Your task to perform on an android device: View the shopping cart on costco. Search for dell xps on costco, select the first entry, and add it to the cart. Image 0: 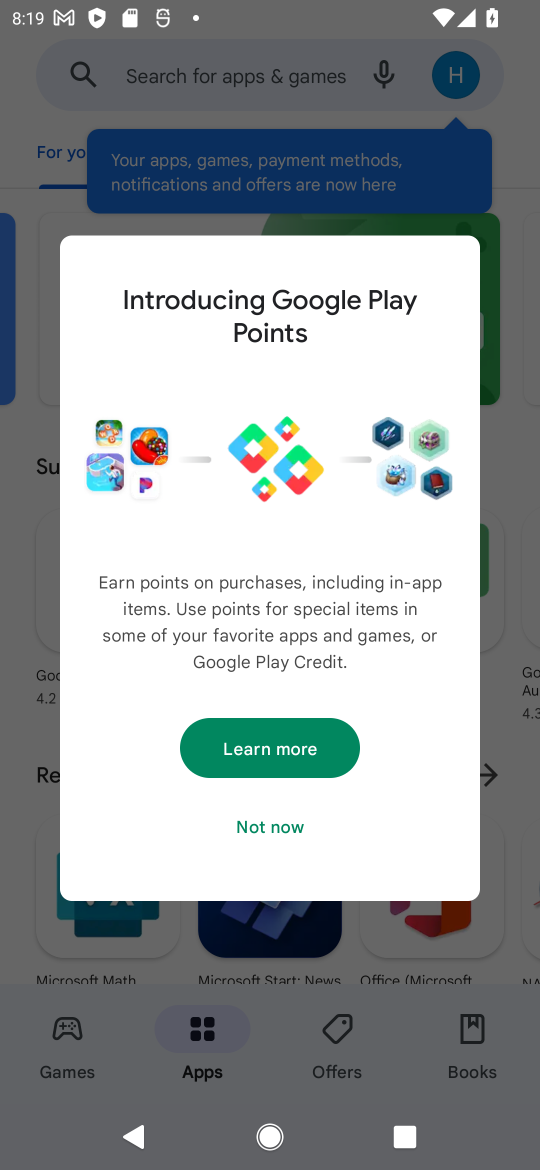
Step 0: press home button
Your task to perform on an android device: View the shopping cart on costco. Search for dell xps on costco, select the first entry, and add it to the cart. Image 1: 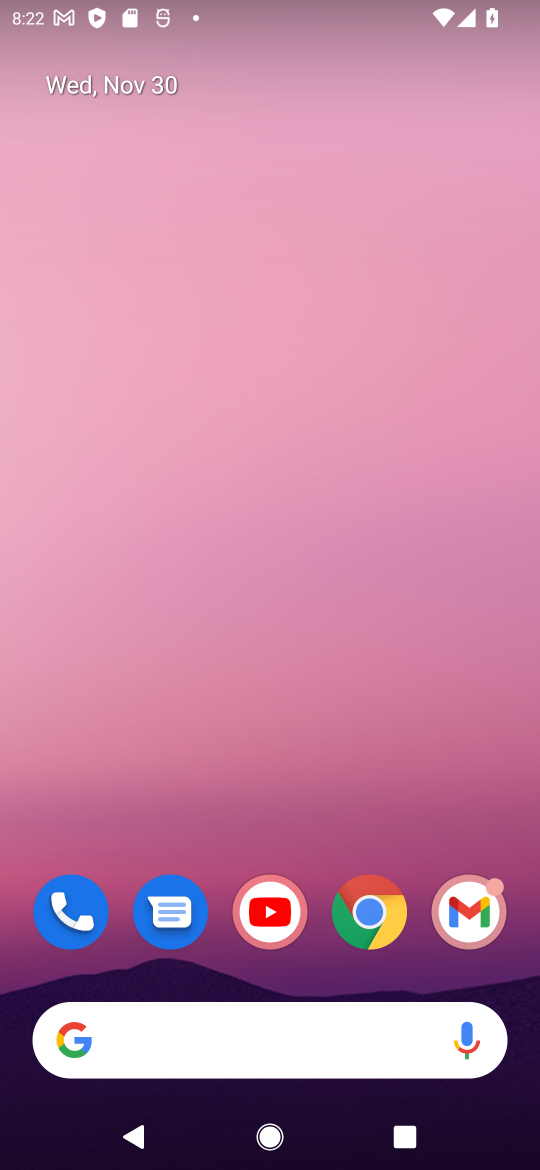
Step 1: click (387, 1032)
Your task to perform on an android device: View the shopping cart on costco. Search for dell xps on costco, select the first entry, and add it to the cart. Image 2: 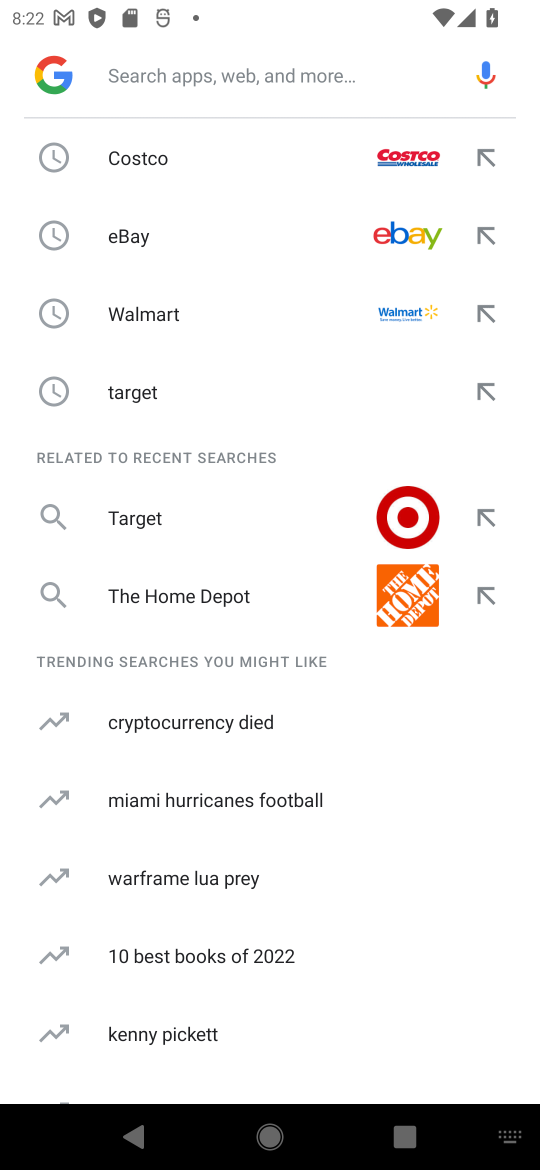
Step 2: click (230, 170)
Your task to perform on an android device: View the shopping cart on costco. Search for dell xps on costco, select the first entry, and add it to the cart. Image 3: 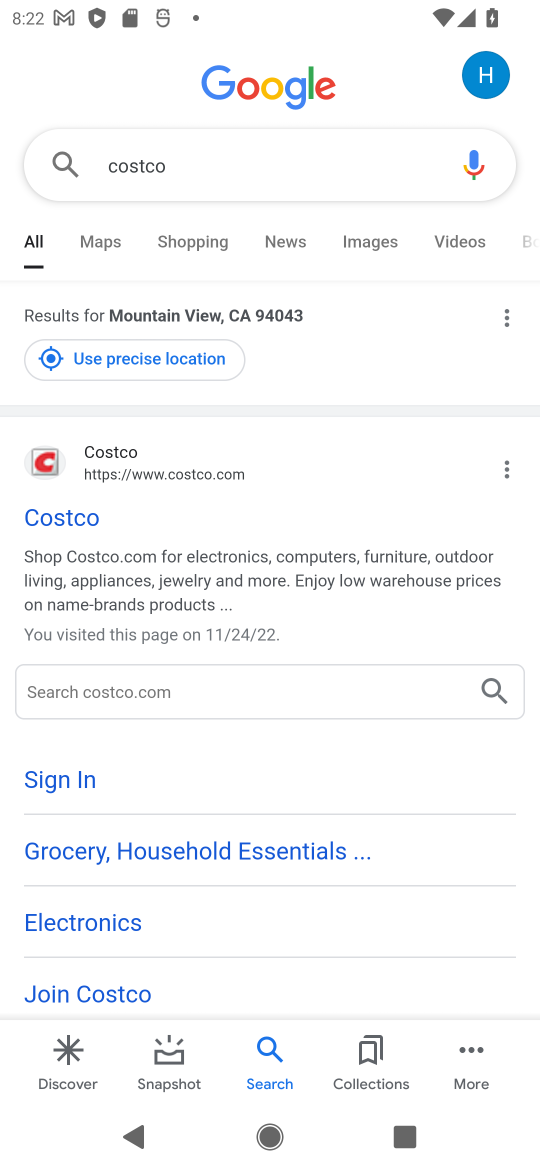
Step 3: click (58, 514)
Your task to perform on an android device: View the shopping cart on costco. Search for dell xps on costco, select the first entry, and add it to the cart. Image 4: 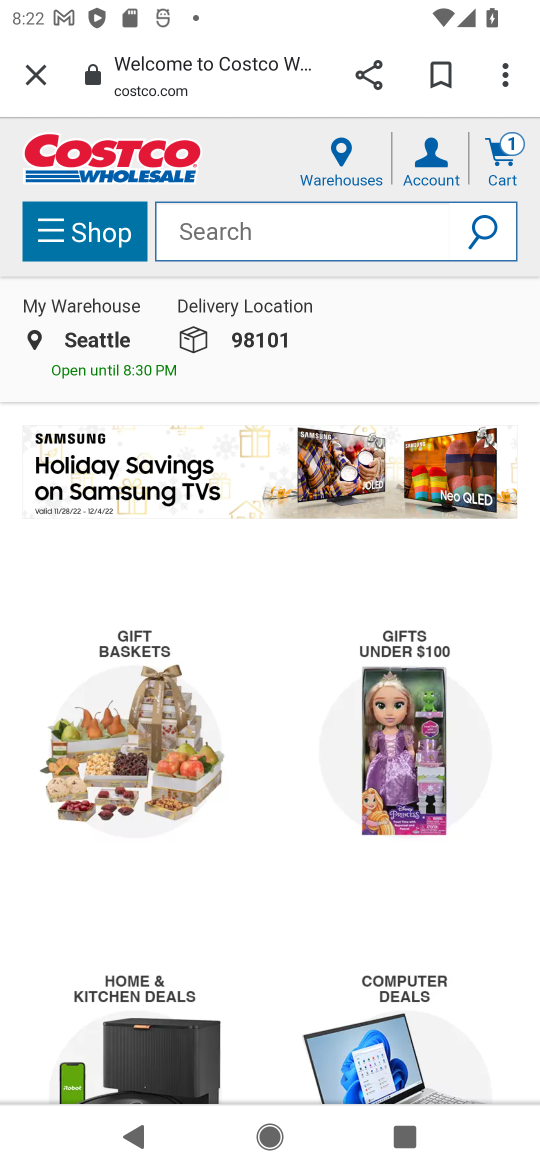
Step 4: click (501, 154)
Your task to perform on an android device: View the shopping cart on costco. Search for dell xps on costco, select the first entry, and add it to the cart. Image 5: 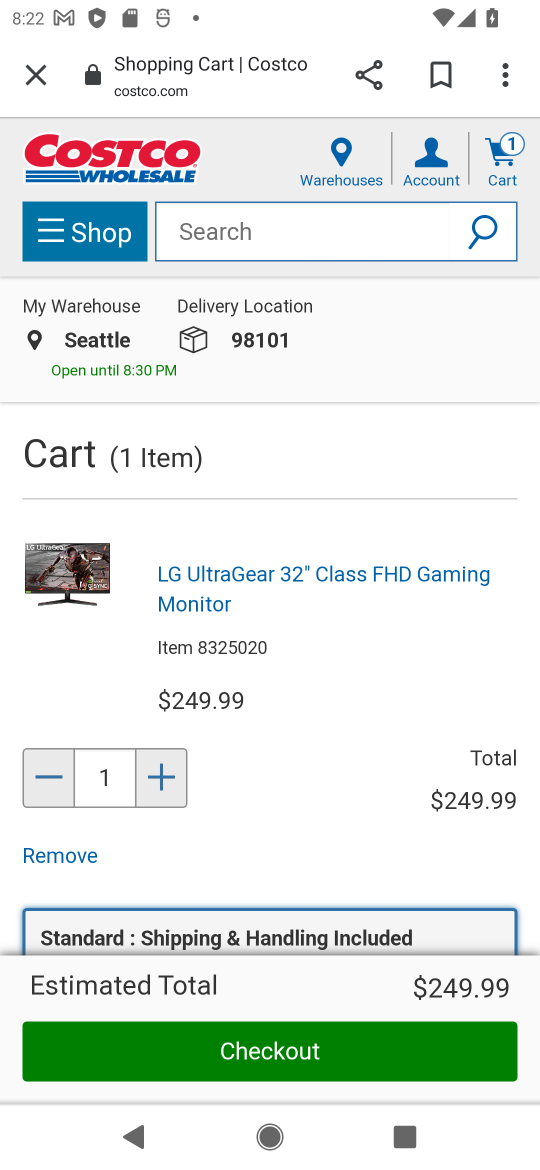
Step 5: task complete